Your task to perform on an android device: add a label to a message in the gmail app Image 0: 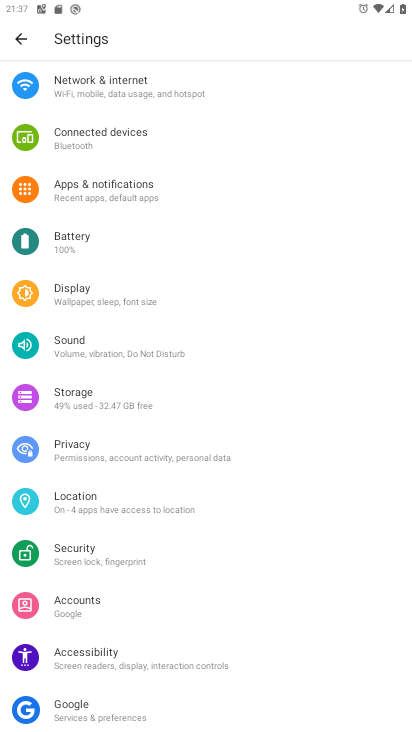
Step 0: press home button
Your task to perform on an android device: add a label to a message in the gmail app Image 1: 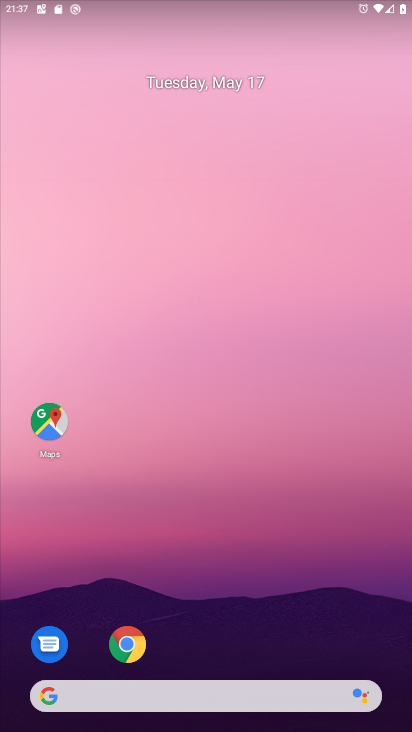
Step 1: drag from (211, 665) to (220, 95)
Your task to perform on an android device: add a label to a message in the gmail app Image 2: 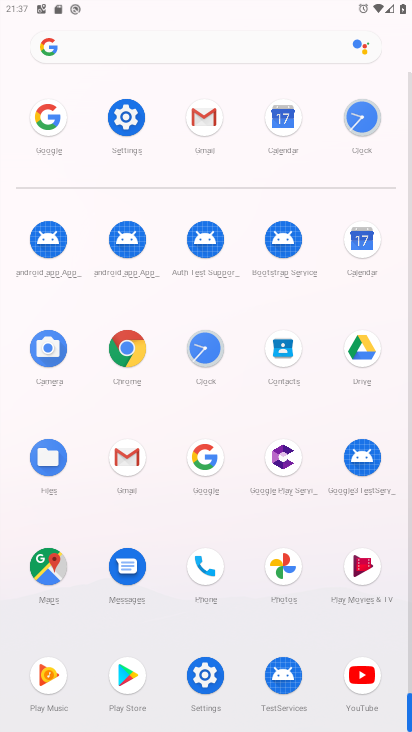
Step 2: click (200, 111)
Your task to perform on an android device: add a label to a message in the gmail app Image 3: 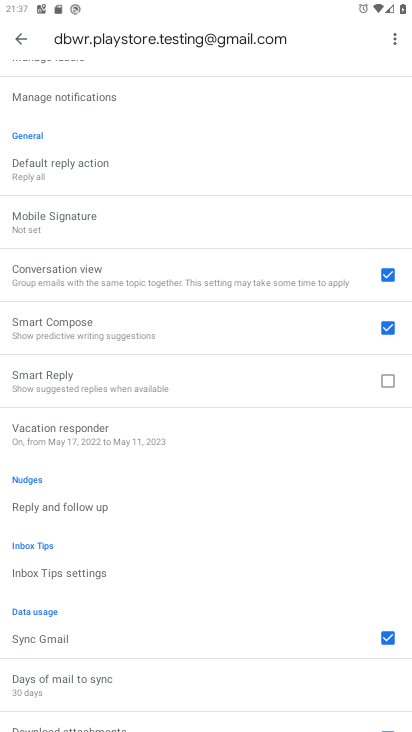
Step 3: click (26, 40)
Your task to perform on an android device: add a label to a message in the gmail app Image 4: 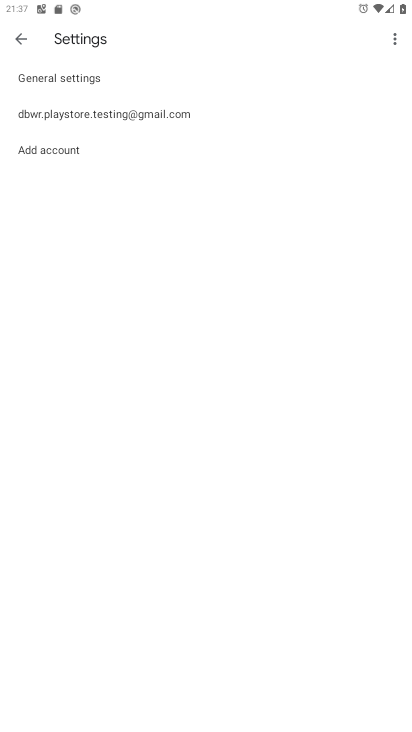
Step 4: click (22, 40)
Your task to perform on an android device: add a label to a message in the gmail app Image 5: 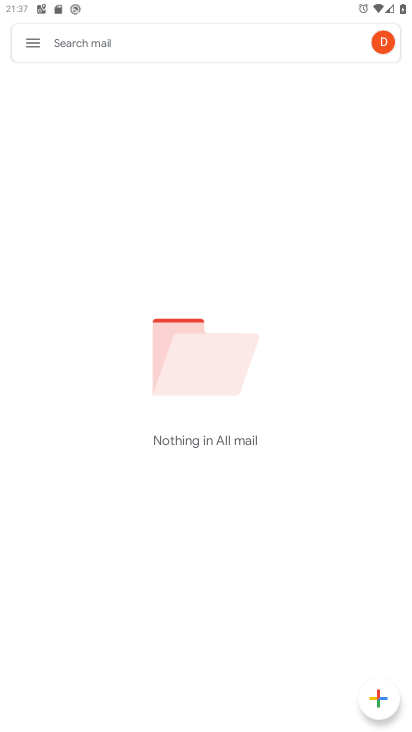
Step 5: task complete